Your task to perform on an android device: delete browsing data in the chrome app Image 0: 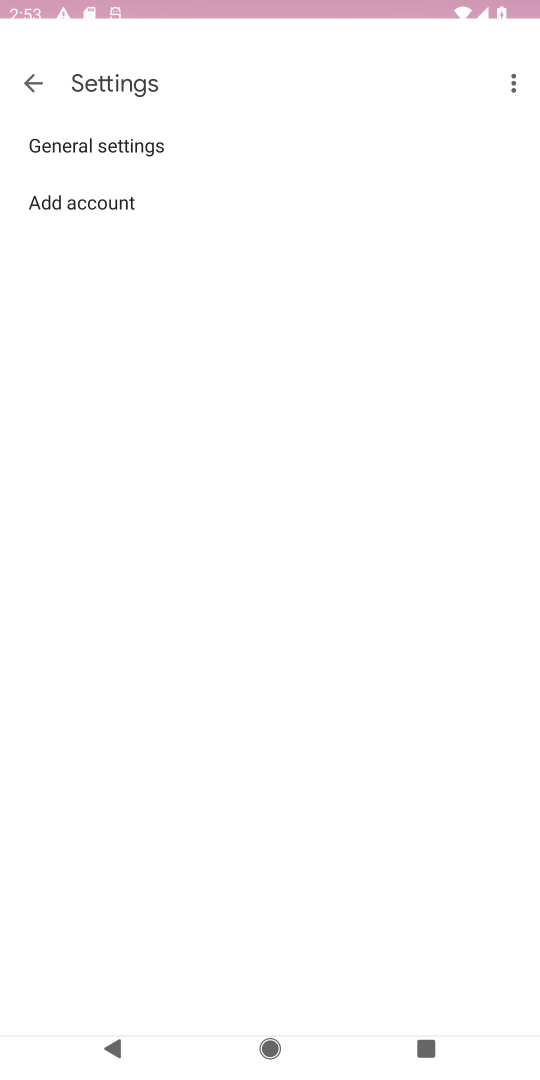
Step 0: click (523, 258)
Your task to perform on an android device: delete browsing data in the chrome app Image 1: 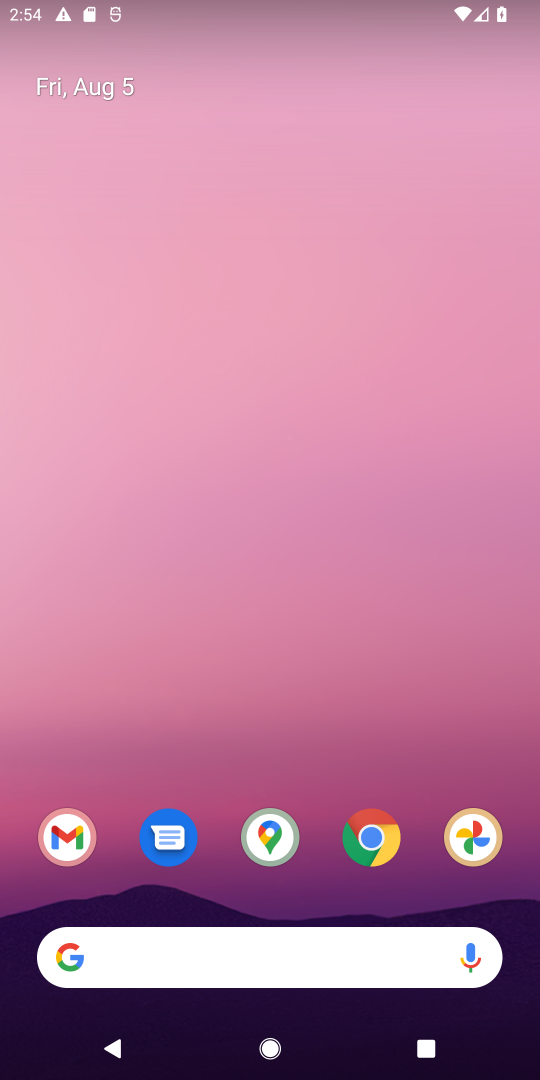
Step 1: task complete